Your task to perform on an android device: Go to eBay Image 0: 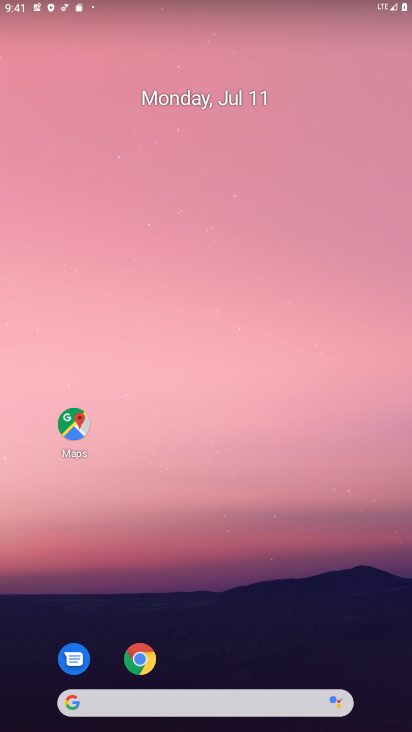
Step 0: drag from (188, 723) to (167, 104)
Your task to perform on an android device: Go to eBay Image 1: 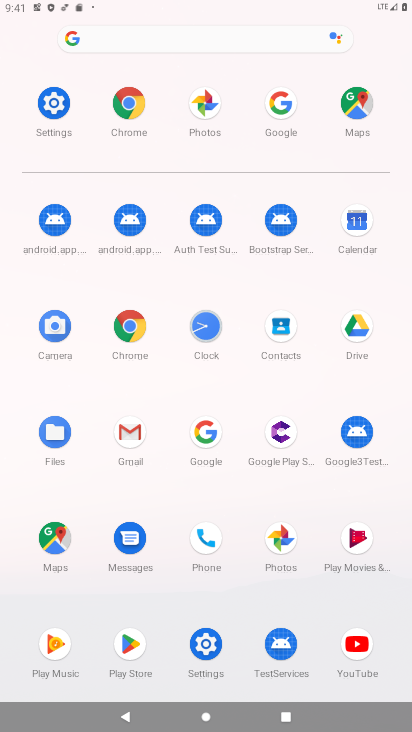
Step 1: click (131, 105)
Your task to perform on an android device: Go to eBay Image 2: 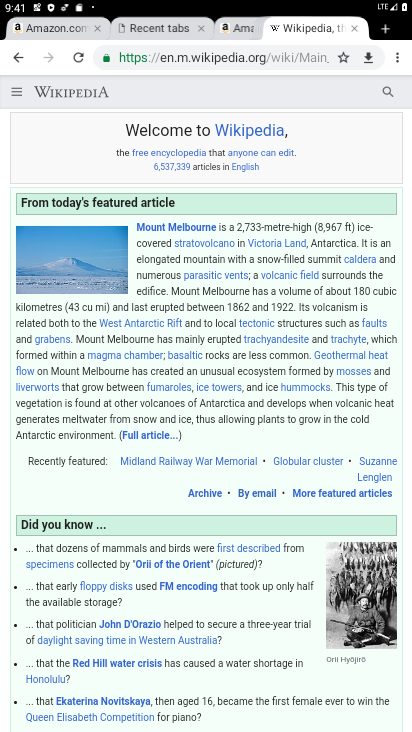
Step 2: click (396, 59)
Your task to perform on an android device: Go to eBay Image 3: 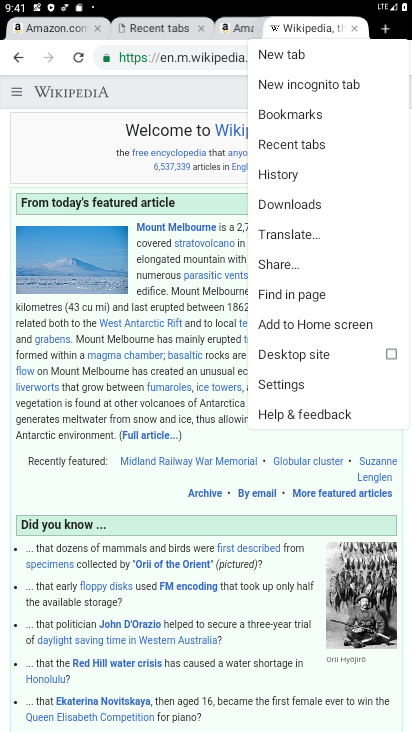
Step 3: click (272, 56)
Your task to perform on an android device: Go to eBay Image 4: 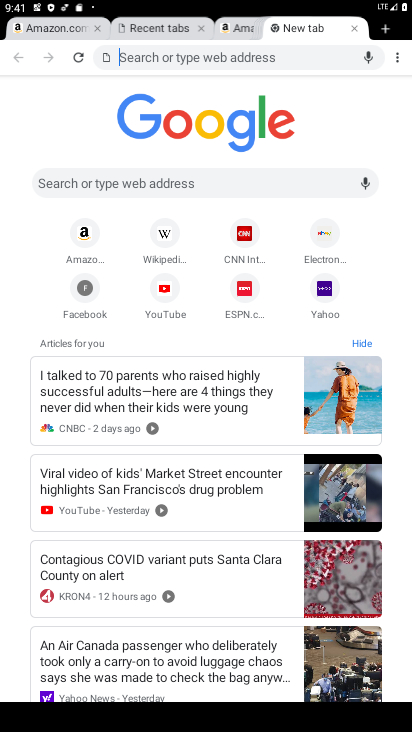
Step 4: click (202, 175)
Your task to perform on an android device: Go to eBay Image 5: 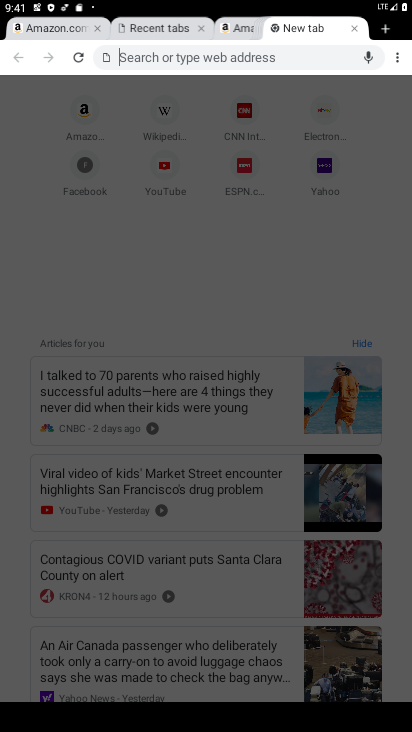
Step 5: type "eBay"
Your task to perform on an android device: Go to eBay Image 6: 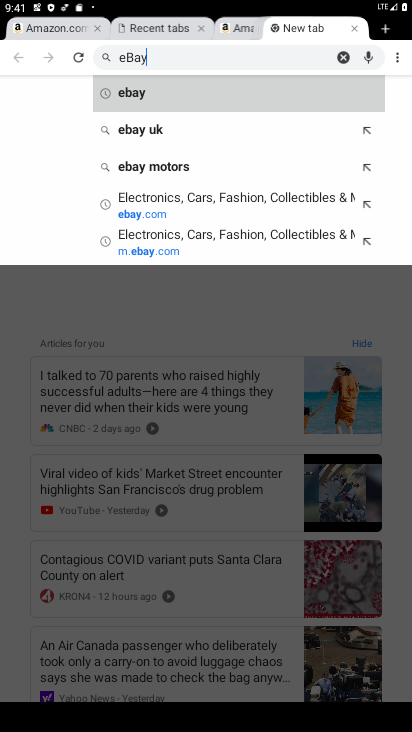
Step 6: type ""
Your task to perform on an android device: Go to eBay Image 7: 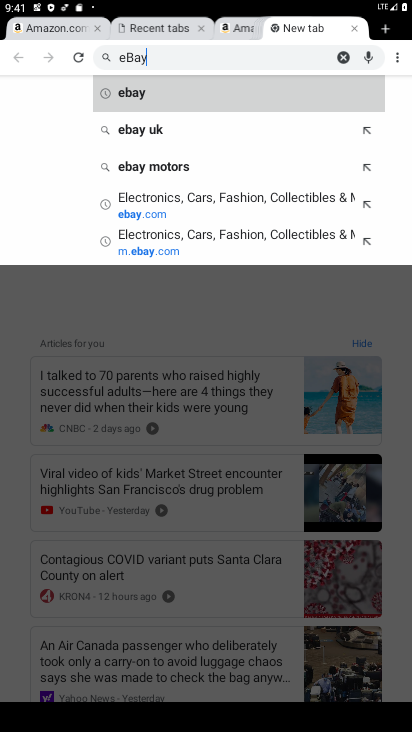
Step 7: click (140, 92)
Your task to perform on an android device: Go to eBay Image 8: 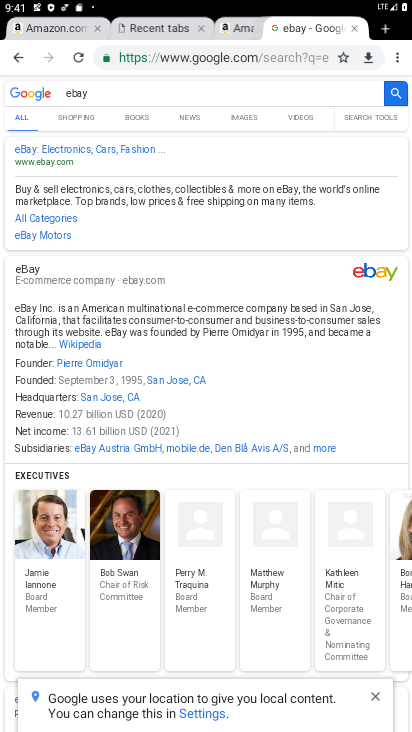
Step 8: click (57, 150)
Your task to perform on an android device: Go to eBay Image 9: 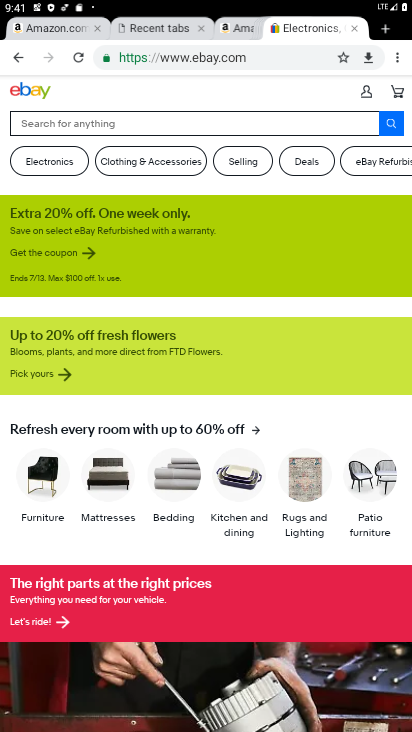
Step 9: task complete